Your task to perform on an android device: Toggle the flashlight Image 0: 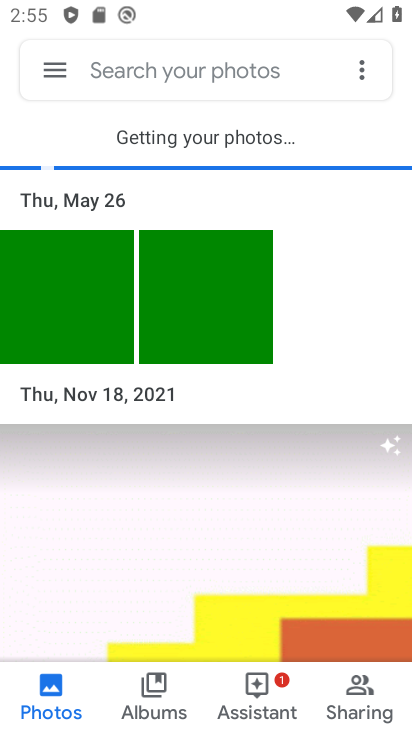
Step 0: press home button
Your task to perform on an android device: Toggle the flashlight Image 1: 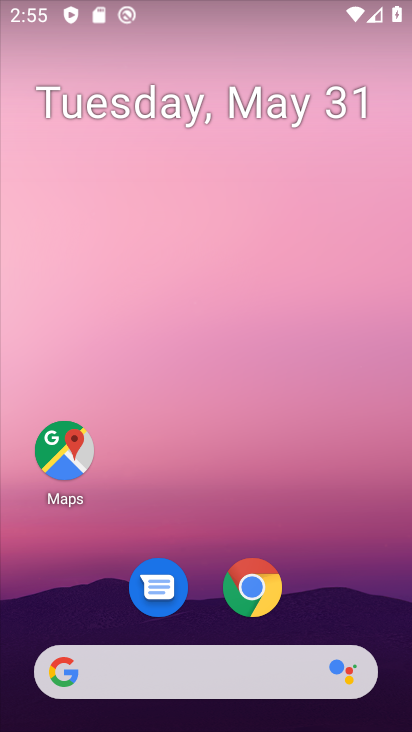
Step 1: drag from (331, 607) to (326, 0)
Your task to perform on an android device: Toggle the flashlight Image 2: 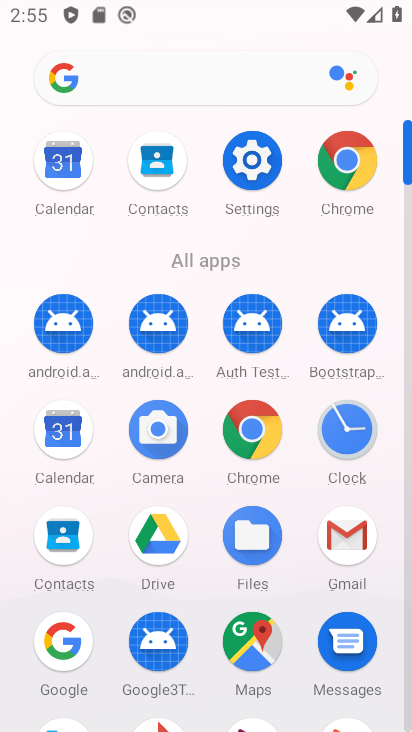
Step 2: click (253, 149)
Your task to perform on an android device: Toggle the flashlight Image 3: 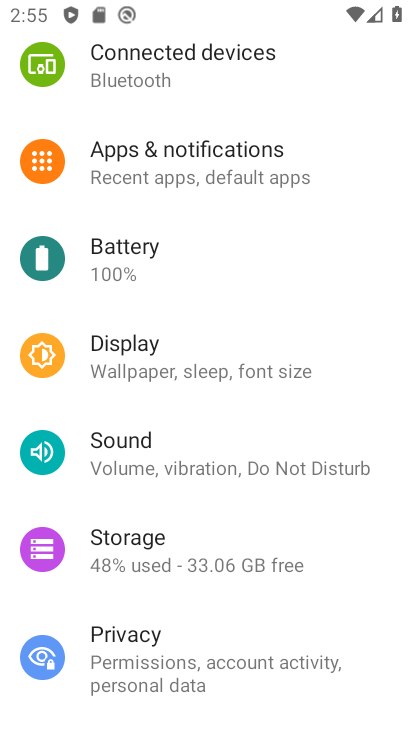
Step 3: task complete